Your task to perform on an android device: See recent photos Image 0: 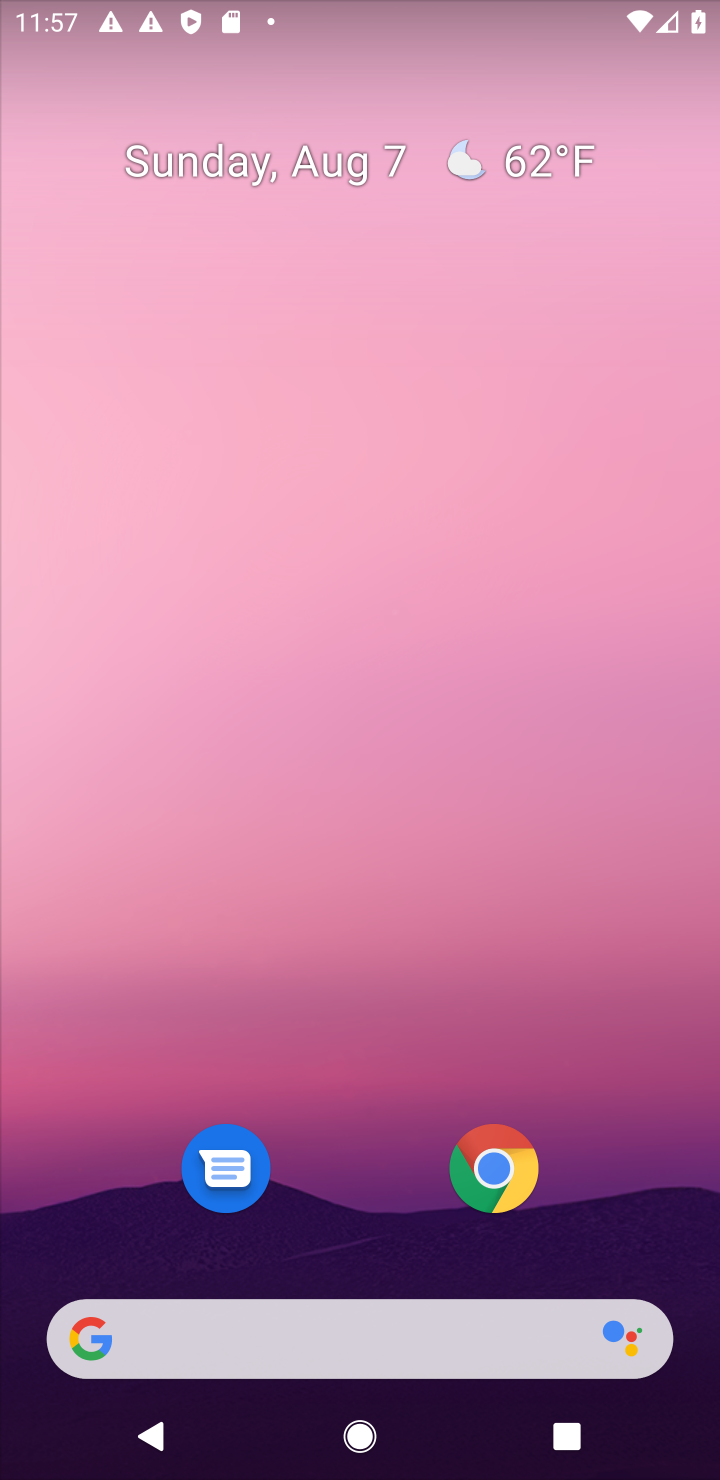
Step 0: drag from (402, 1273) to (399, 266)
Your task to perform on an android device: See recent photos Image 1: 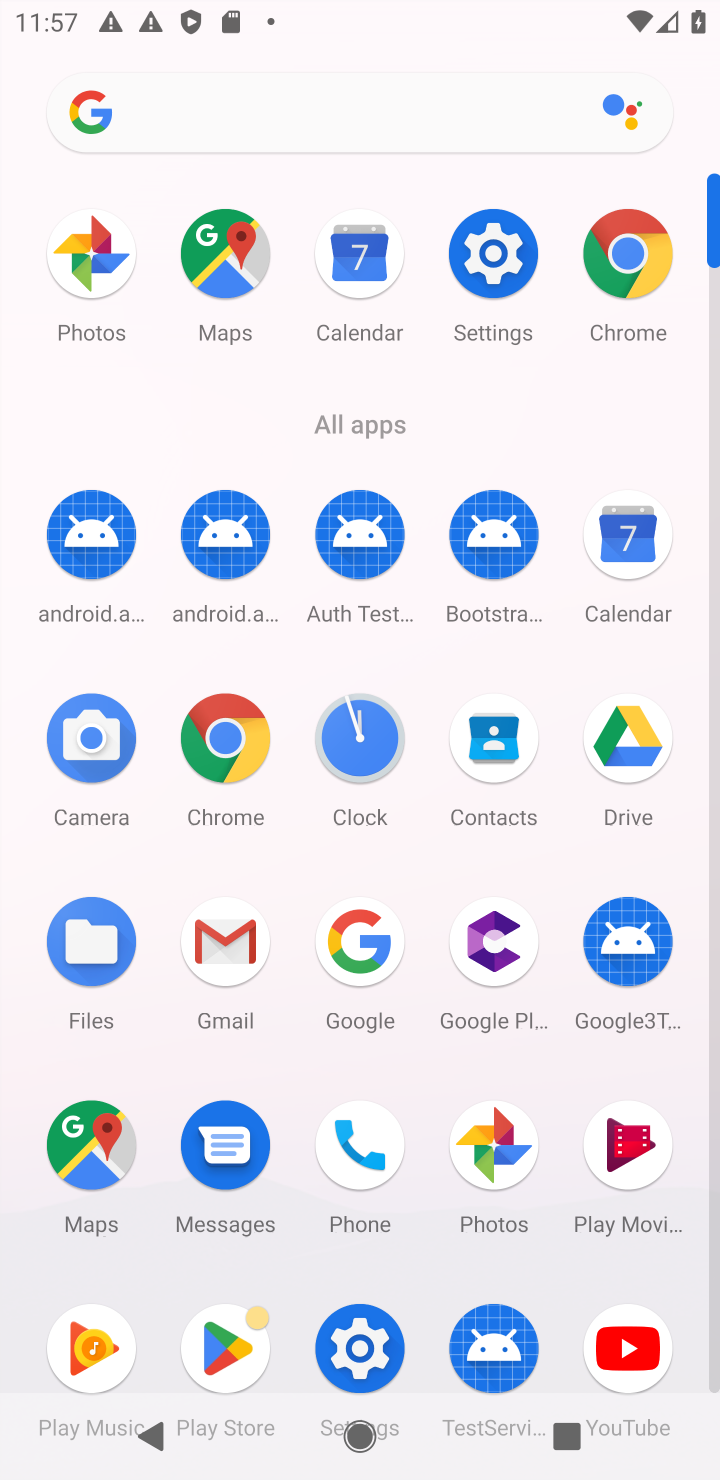
Step 1: click (524, 1154)
Your task to perform on an android device: See recent photos Image 2: 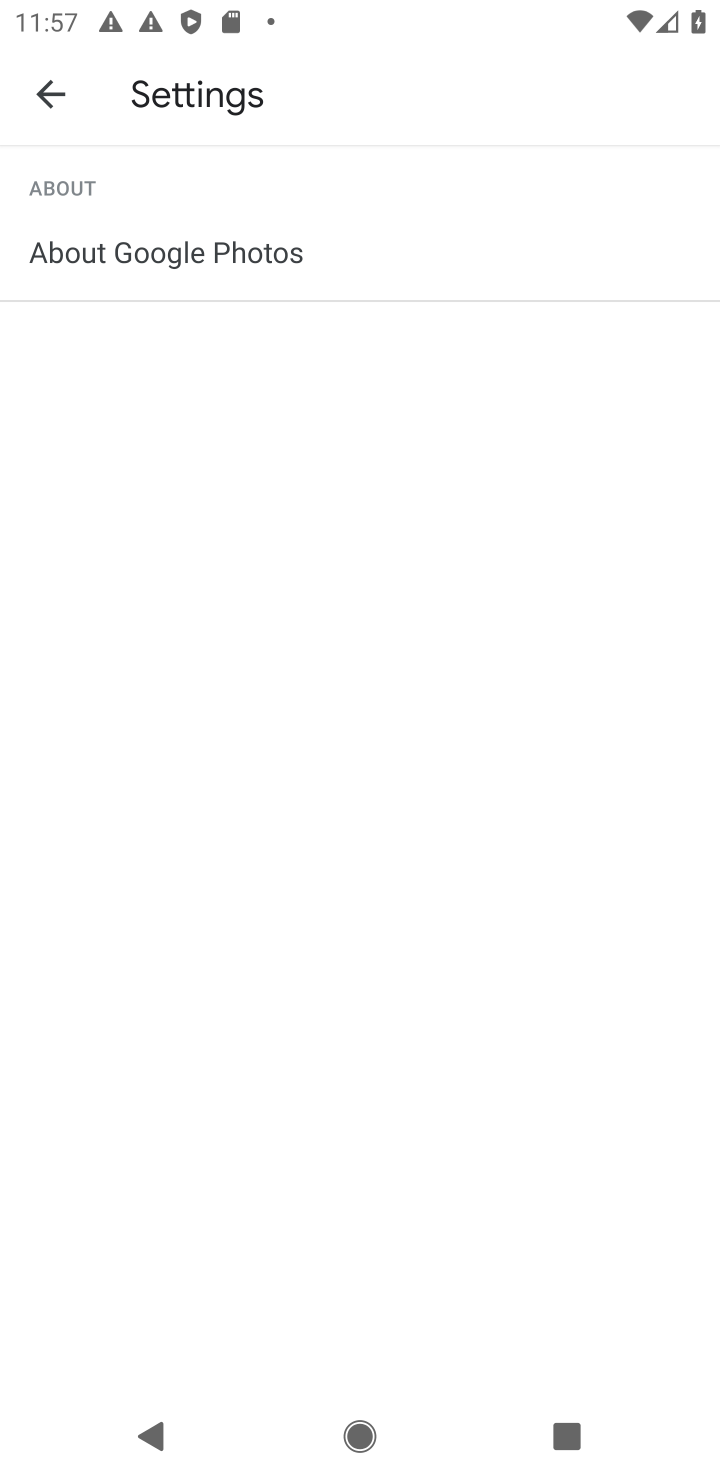
Step 2: task complete